Your task to perform on an android device: uninstall "LinkedIn" Image 0: 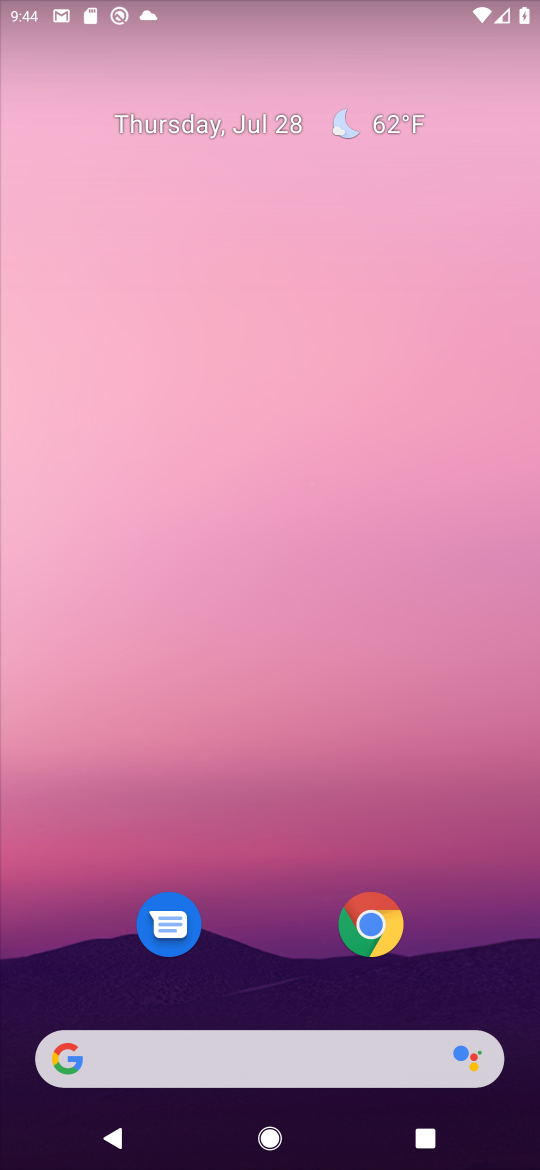
Step 0: drag from (309, 1051) to (333, 145)
Your task to perform on an android device: uninstall "LinkedIn" Image 1: 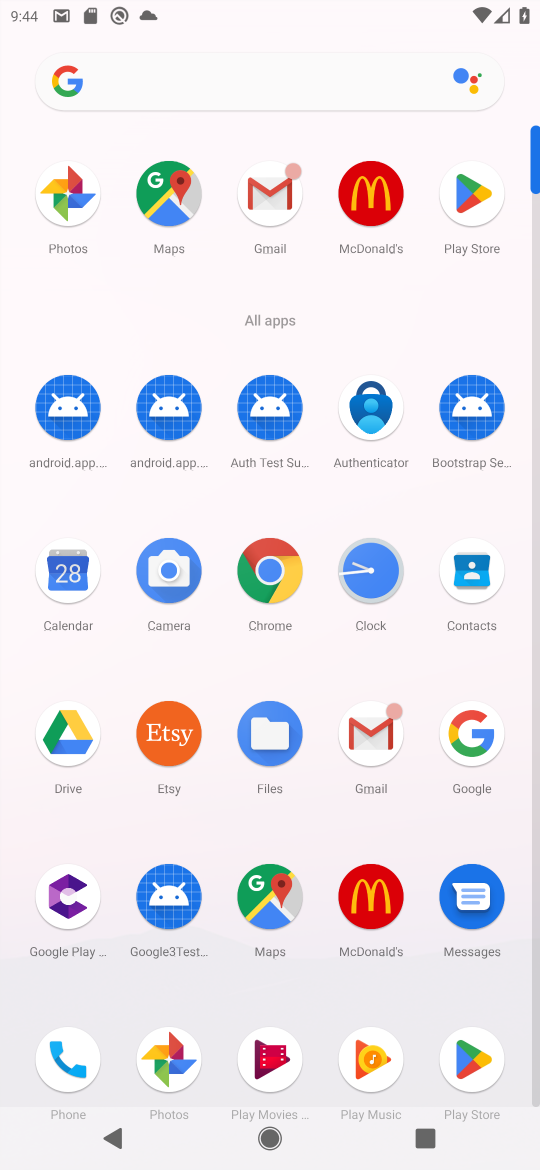
Step 1: click (472, 223)
Your task to perform on an android device: uninstall "LinkedIn" Image 2: 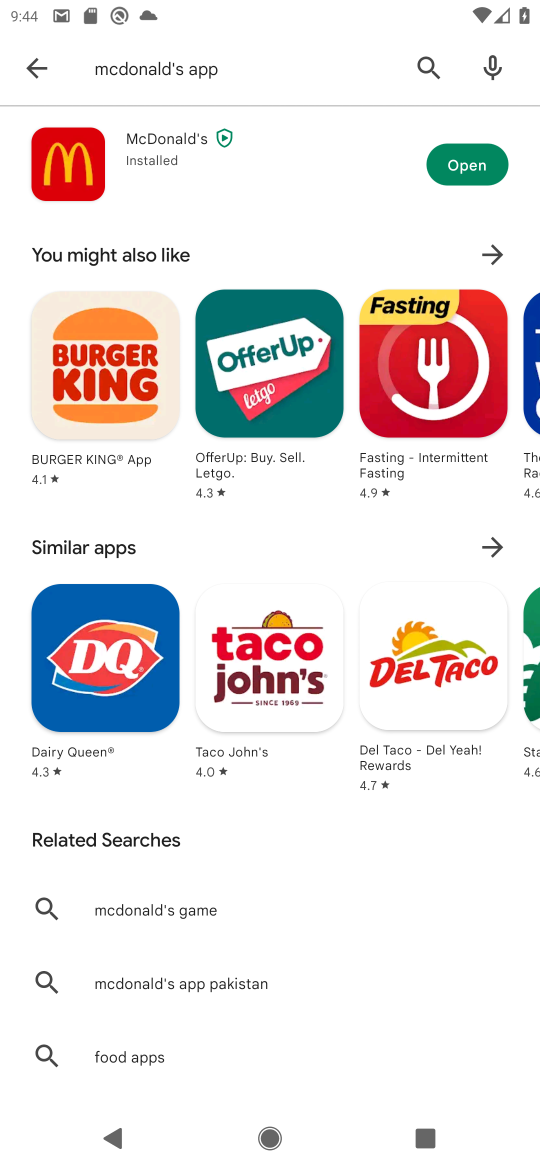
Step 2: click (416, 72)
Your task to perform on an android device: uninstall "LinkedIn" Image 3: 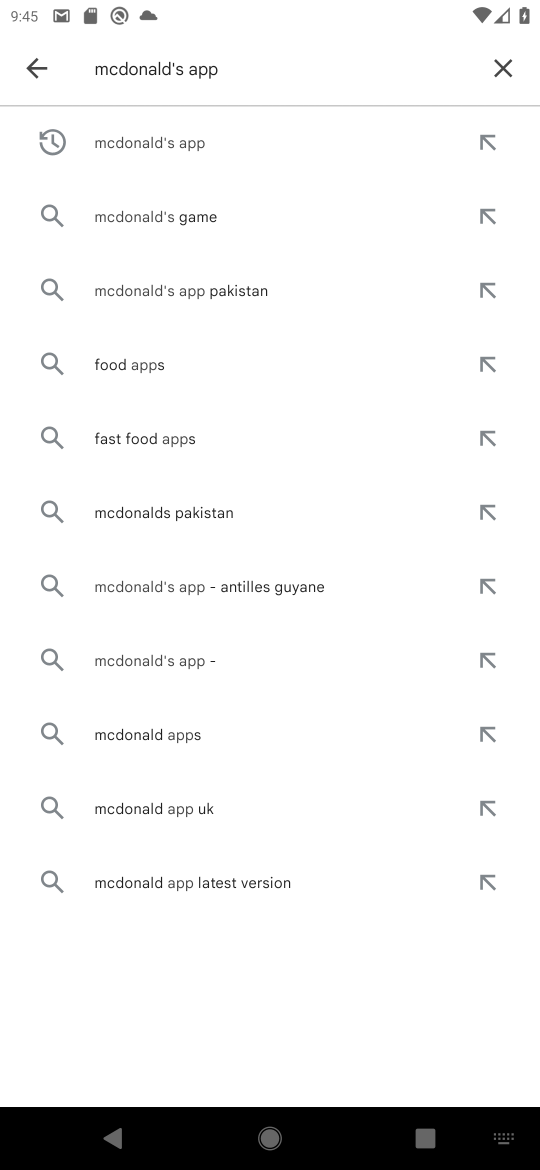
Step 3: click (499, 69)
Your task to perform on an android device: uninstall "LinkedIn" Image 4: 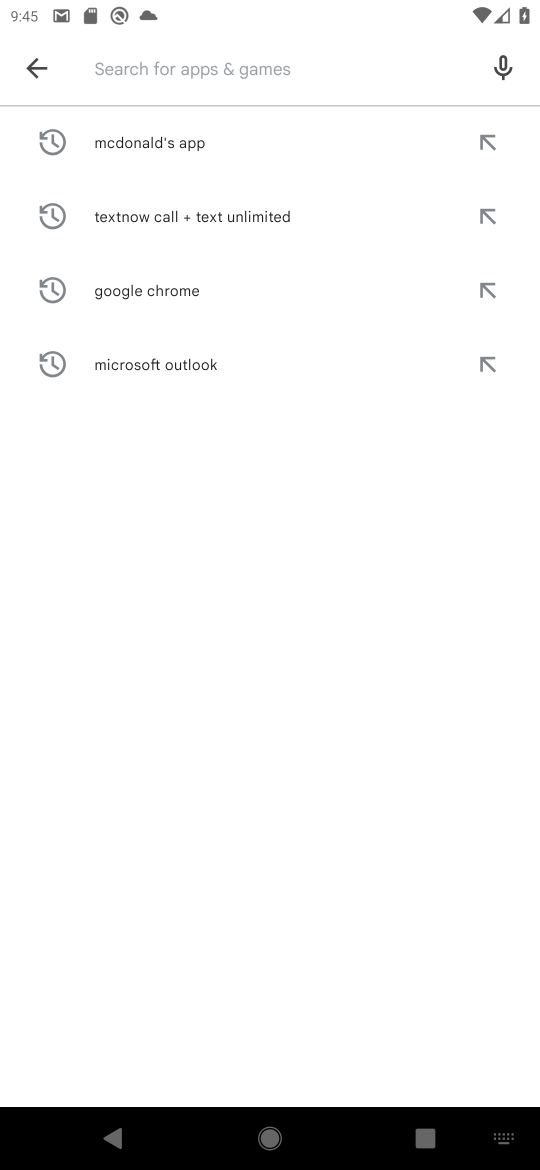
Step 4: type "LinkedIn"
Your task to perform on an android device: uninstall "LinkedIn" Image 5: 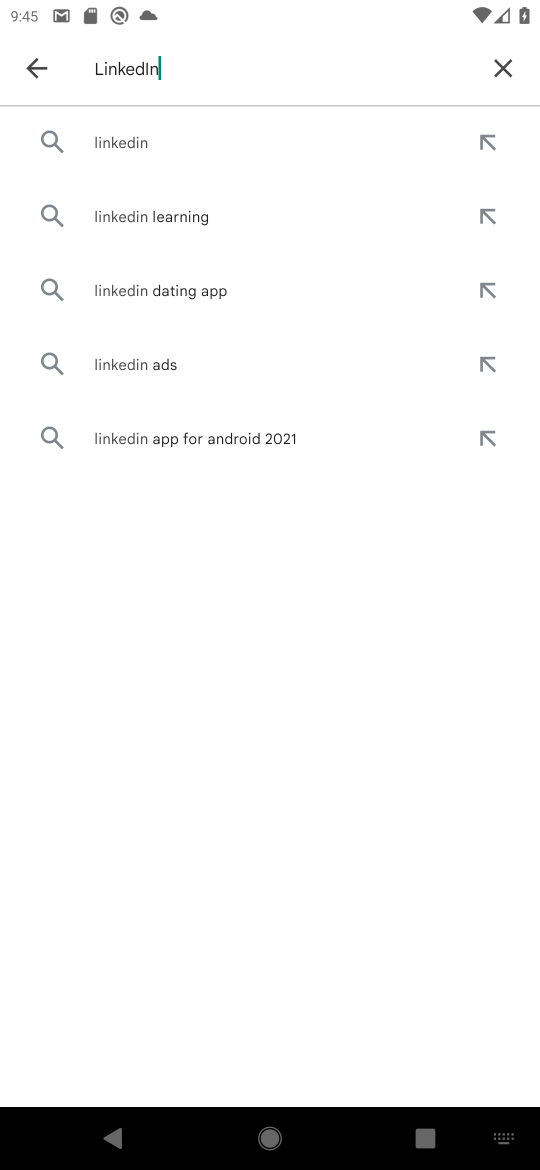
Step 5: click (107, 154)
Your task to perform on an android device: uninstall "LinkedIn" Image 6: 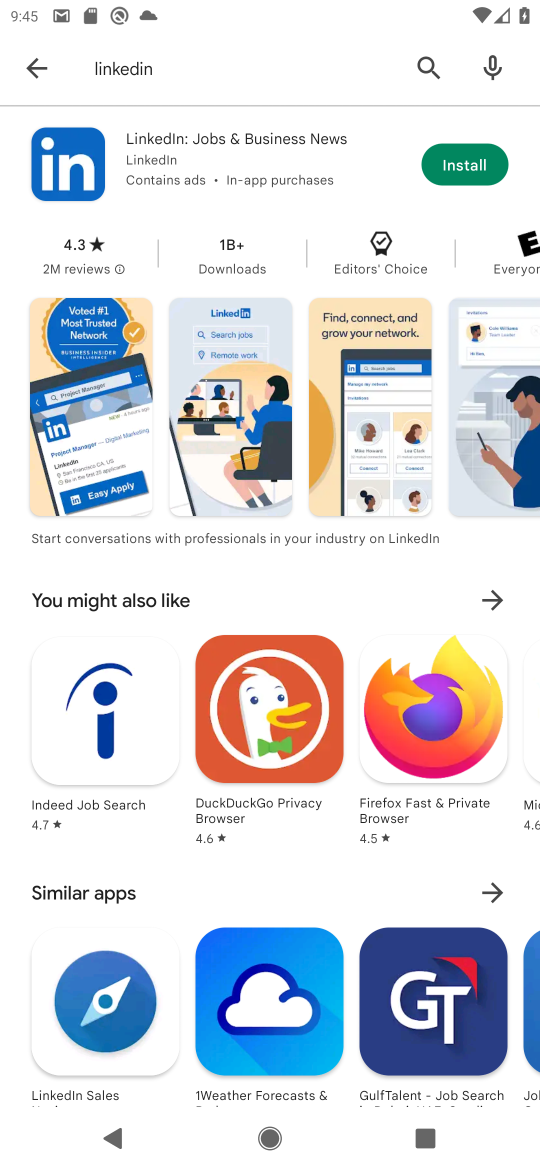
Step 6: task complete